Your task to perform on an android device: Go to network settings Image 0: 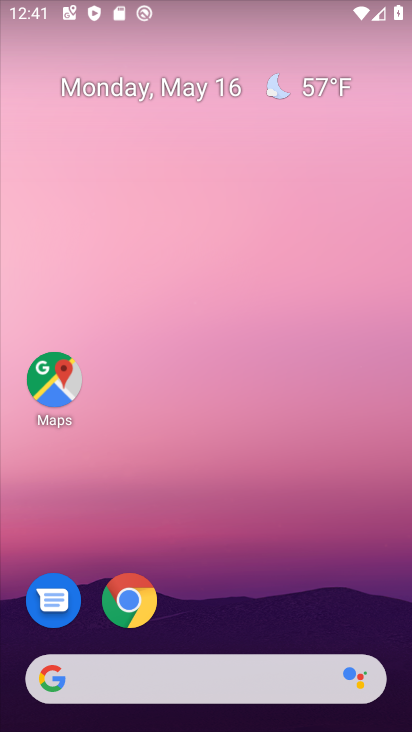
Step 0: drag from (212, 626) to (285, 47)
Your task to perform on an android device: Go to network settings Image 1: 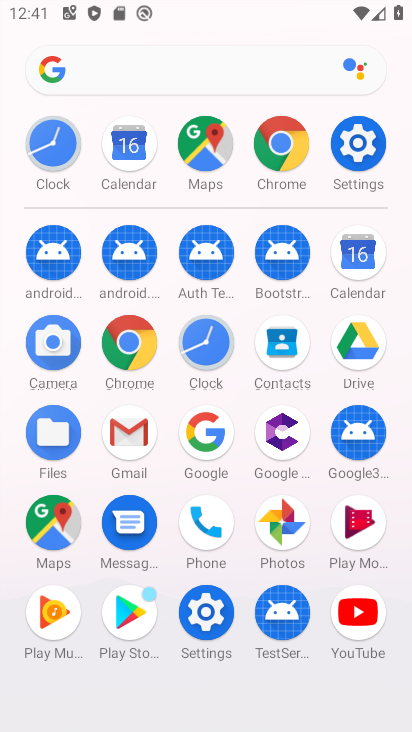
Step 1: click (362, 147)
Your task to perform on an android device: Go to network settings Image 2: 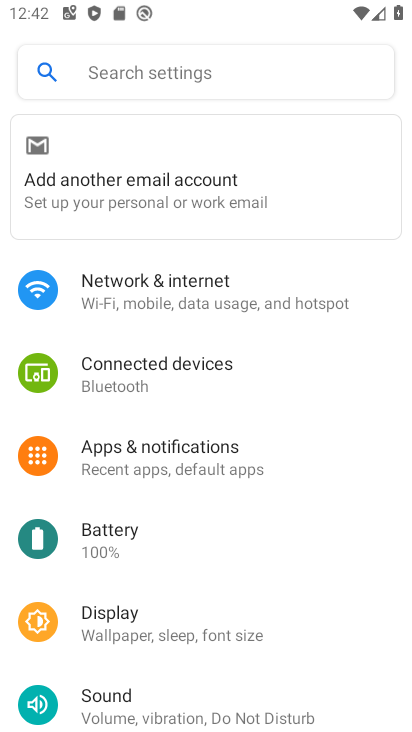
Step 2: click (142, 297)
Your task to perform on an android device: Go to network settings Image 3: 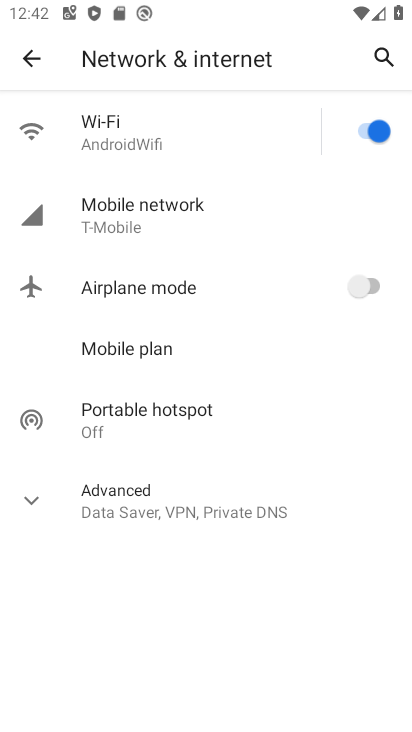
Step 3: task complete